Your task to perform on an android device: change timer sound Image 0: 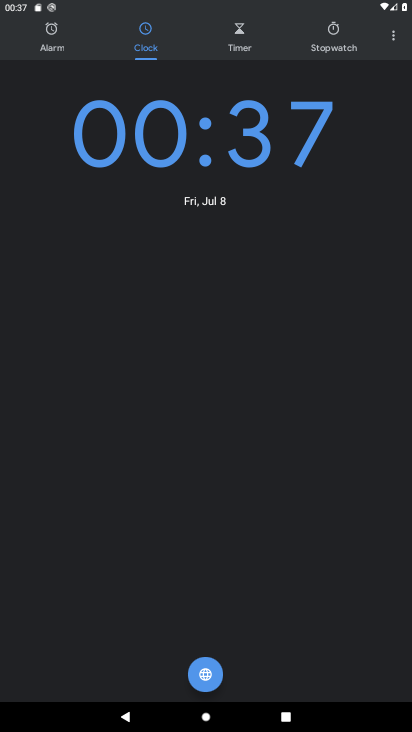
Step 0: click (388, 34)
Your task to perform on an android device: change timer sound Image 1: 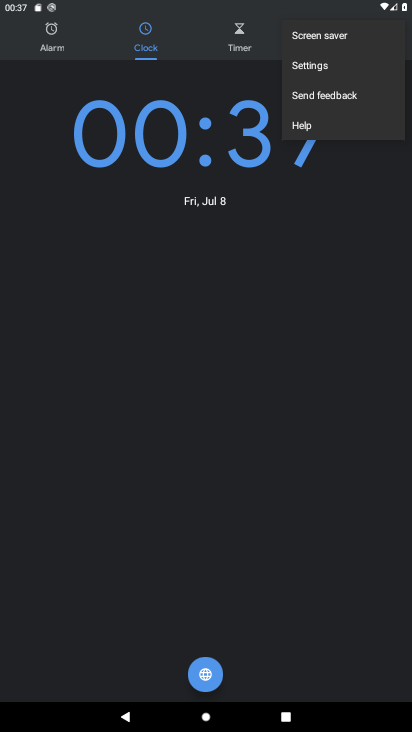
Step 1: click (330, 70)
Your task to perform on an android device: change timer sound Image 2: 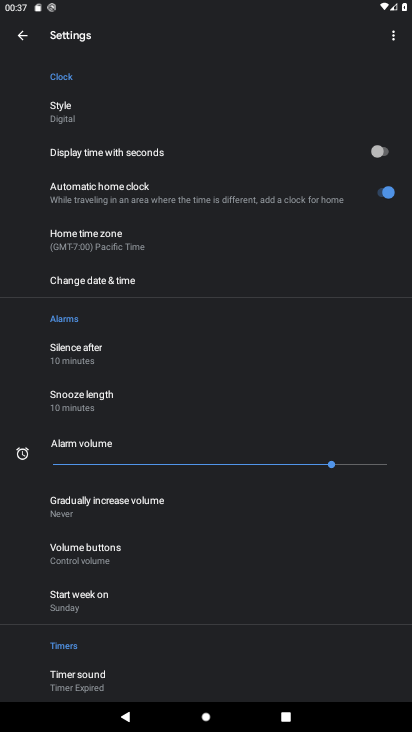
Step 2: click (106, 673)
Your task to perform on an android device: change timer sound Image 3: 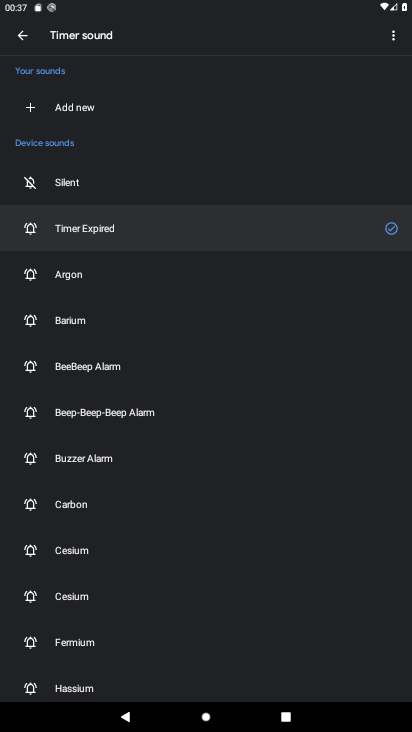
Step 3: click (152, 273)
Your task to perform on an android device: change timer sound Image 4: 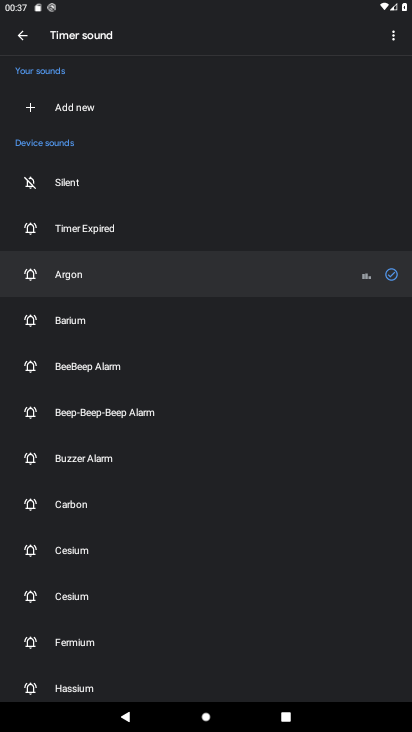
Step 4: task complete